Your task to perform on an android device: Open the stopwatch Image 0: 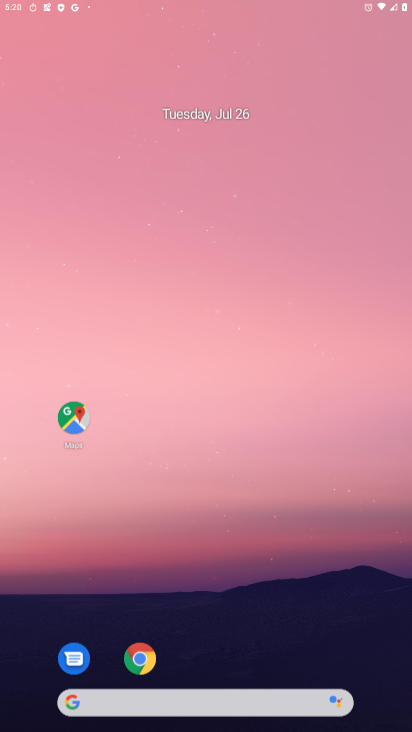
Step 0: press home button
Your task to perform on an android device: Open the stopwatch Image 1: 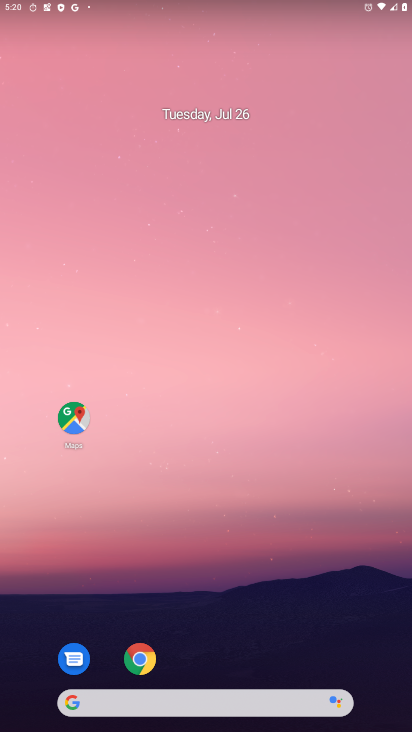
Step 1: drag from (213, 674) to (239, 53)
Your task to perform on an android device: Open the stopwatch Image 2: 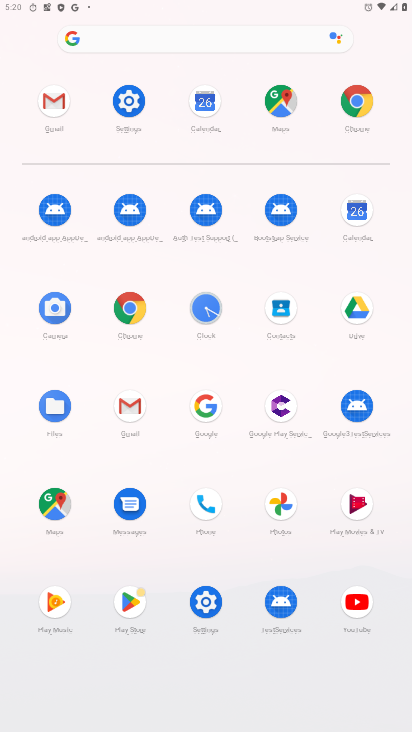
Step 2: click (203, 304)
Your task to perform on an android device: Open the stopwatch Image 3: 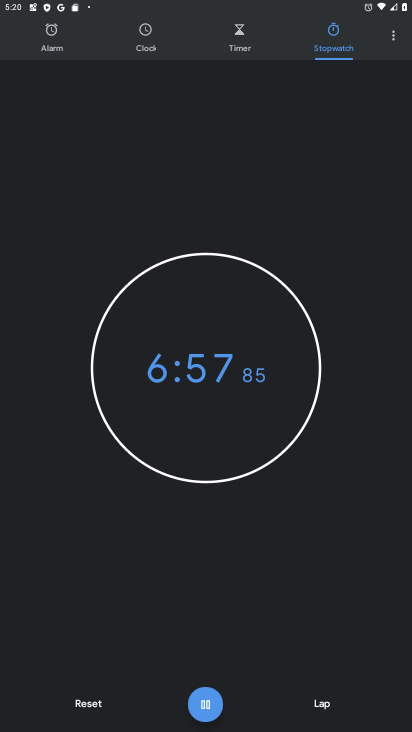
Step 3: task complete